Your task to perform on an android device: turn pop-ups on in chrome Image 0: 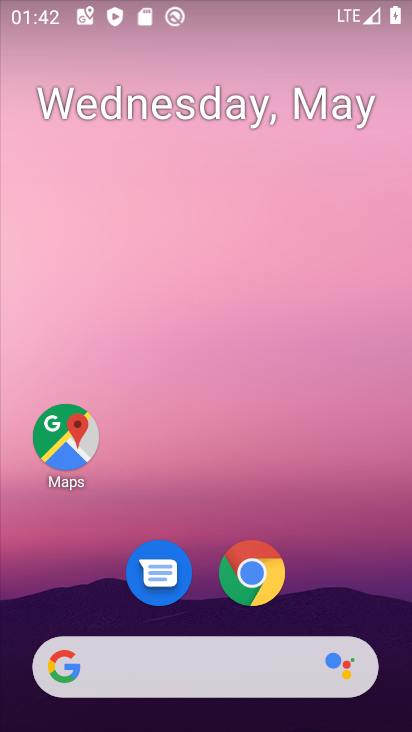
Step 0: click (276, 578)
Your task to perform on an android device: turn pop-ups on in chrome Image 1: 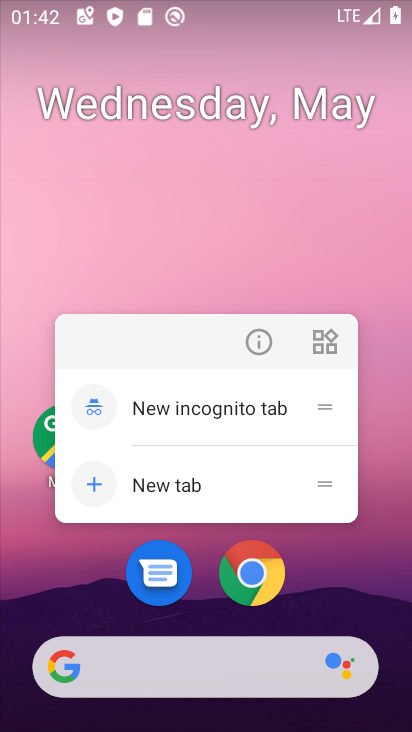
Step 1: click (252, 566)
Your task to perform on an android device: turn pop-ups on in chrome Image 2: 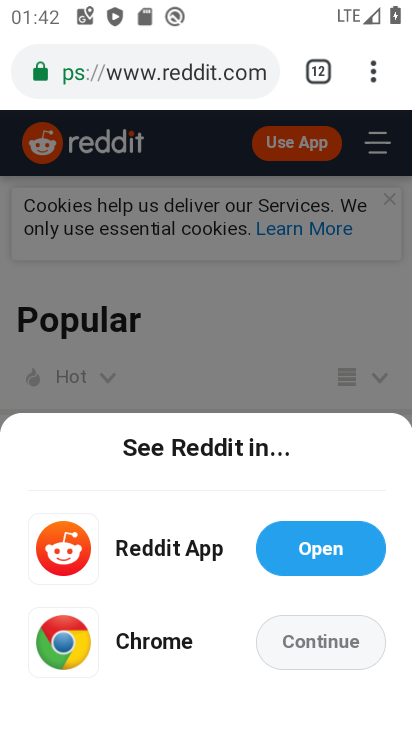
Step 2: click (377, 81)
Your task to perform on an android device: turn pop-ups on in chrome Image 3: 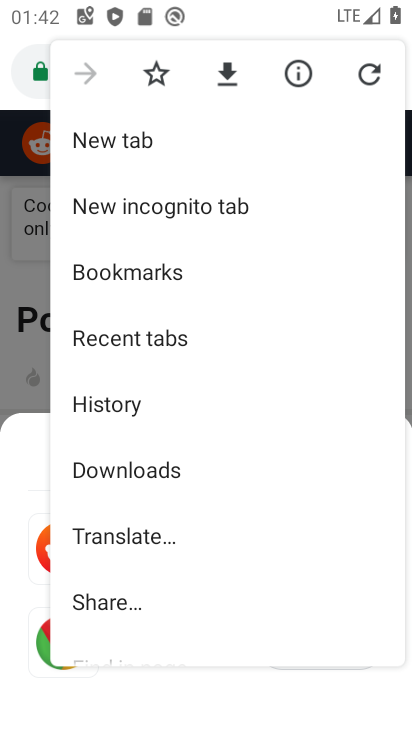
Step 3: drag from (190, 598) to (195, 215)
Your task to perform on an android device: turn pop-ups on in chrome Image 4: 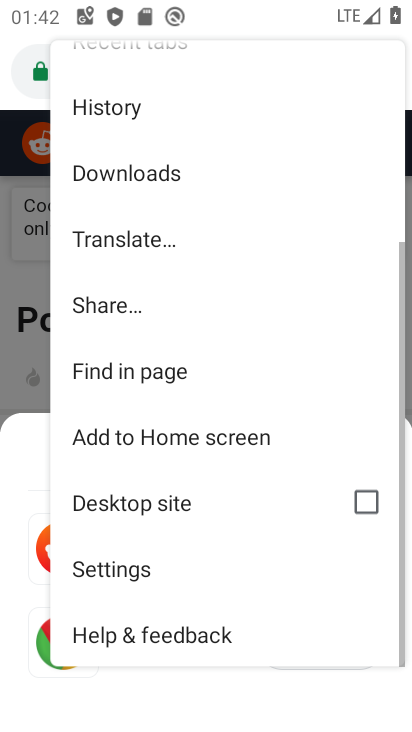
Step 4: click (135, 533)
Your task to perform on an android device: turn pop-ups on in chrome Image 5: 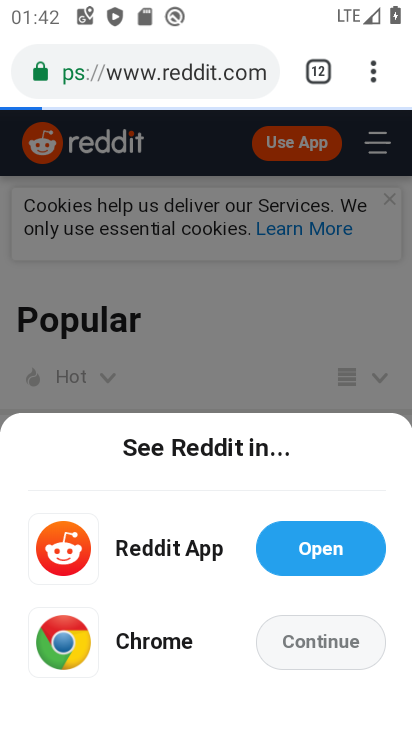
Step 5: click (128, 553)
Your task to perform on an android device: turn pop-ups on in chrome Image 6: 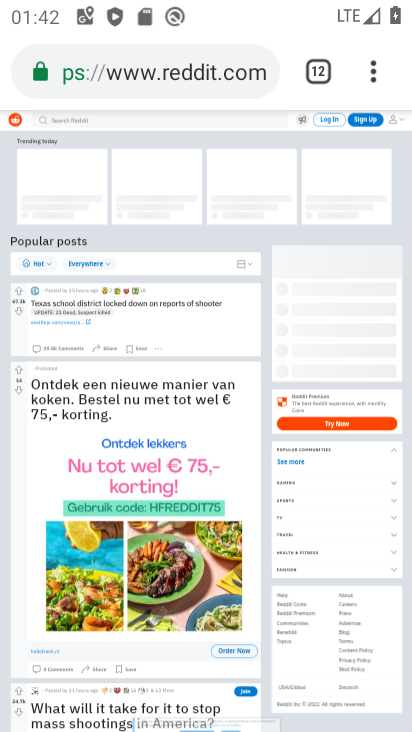
Step 6: click (380, 65)
Your task to perform on an android device: turn pop-ups on in chrome Image 7: 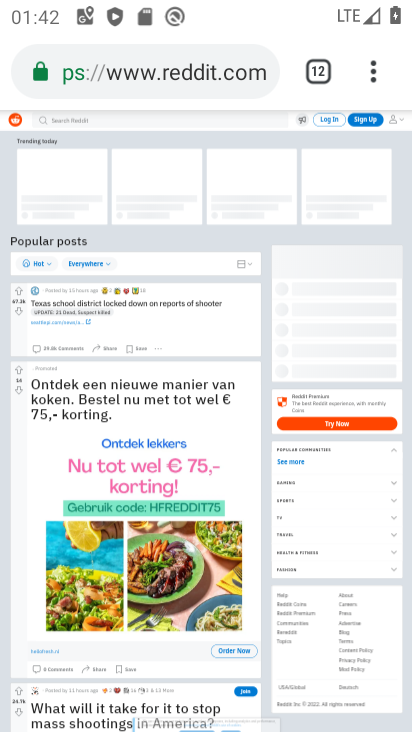
Step 7: task complete